Your task to perform on an android device: Open calendar and show me the fourth week of next month Image 0: 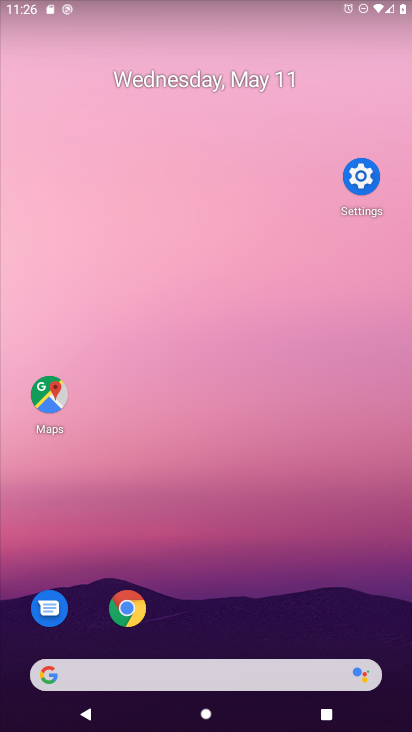
Step 0: drag from (296, 652) to (159, 124)
Your task to perform on an android device: Open calendar and show me the fourth week of next month Image 1: 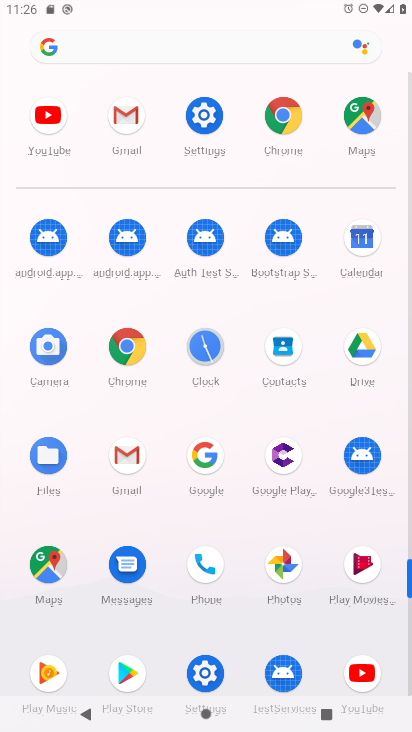
Step 1: click (362, 233)
Your task to perform on an android device: Open calendar and show me the fourth week of next month Image 2: 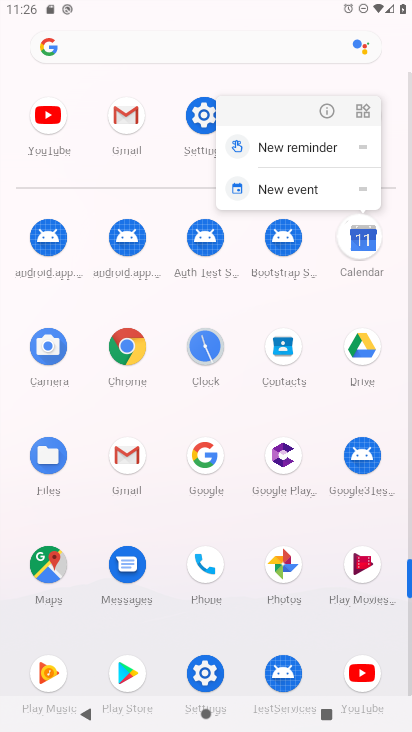
Step 2: click (358, 231)
Your task to perform on an android device: Open calendar and show me the fourth week of next month Image 3: 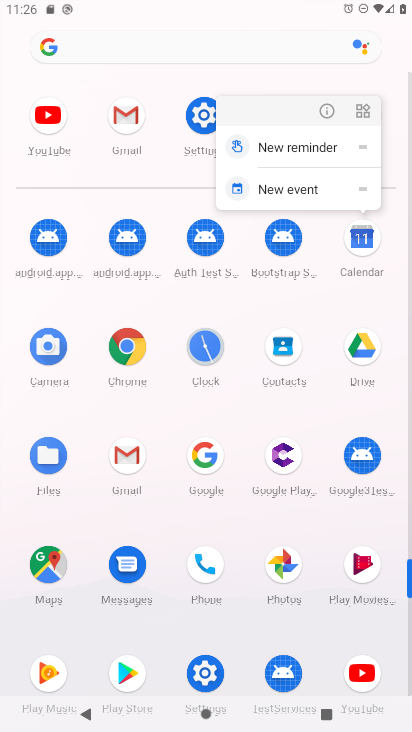
Step 3: click (358, 231)
Your task to perform on an android device: Open calendar and show me the fourth week of next month Image 4: 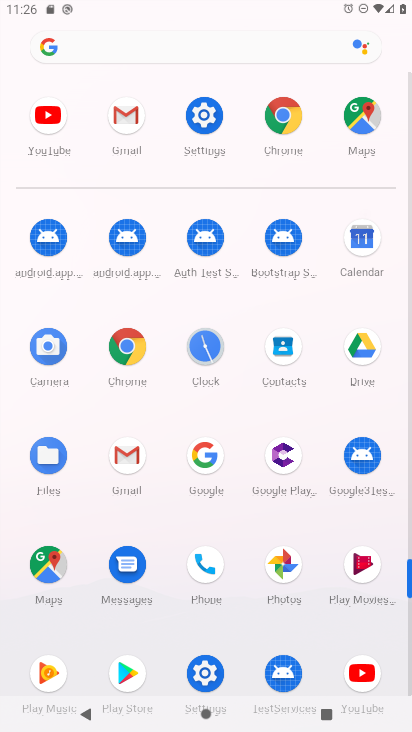
Step 4: click (361, 229)
Your task to perform on an android device: Open calendar and show me the fourth week of next month Image 5: 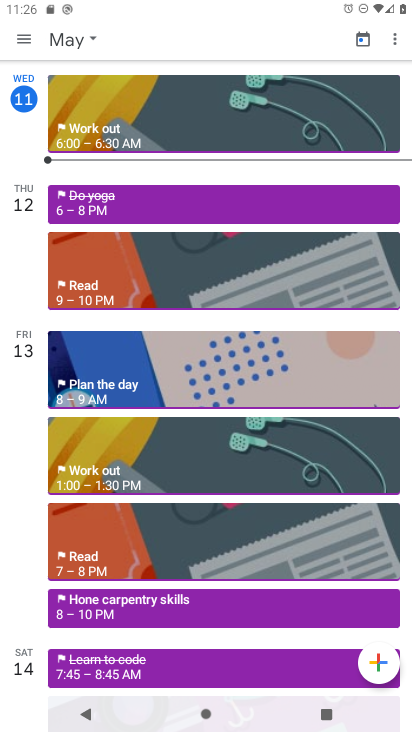
Step 5: click (362, 237)
Your task to perform on an android device: Open calendar and show me the fourth week of next month Image 6: 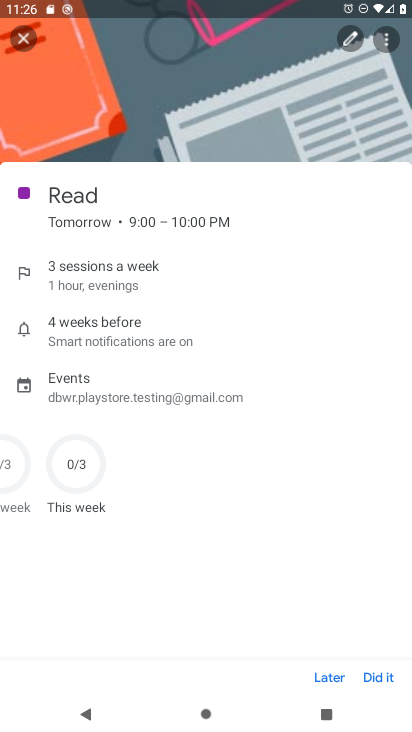
Step 6: click (32, 45)
Your task to perform on an android device: Open calendar and show me the fourth week of next month Image 7: 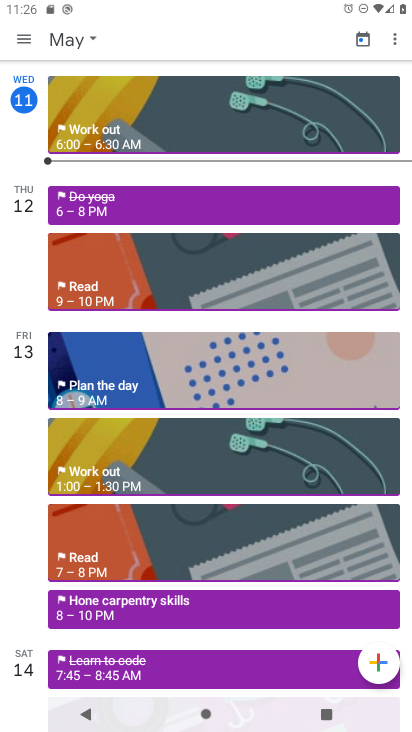
Step 7: task complete